Your task to perform on an android device: open app "Spotify: Music and Podcasts" Image 0: 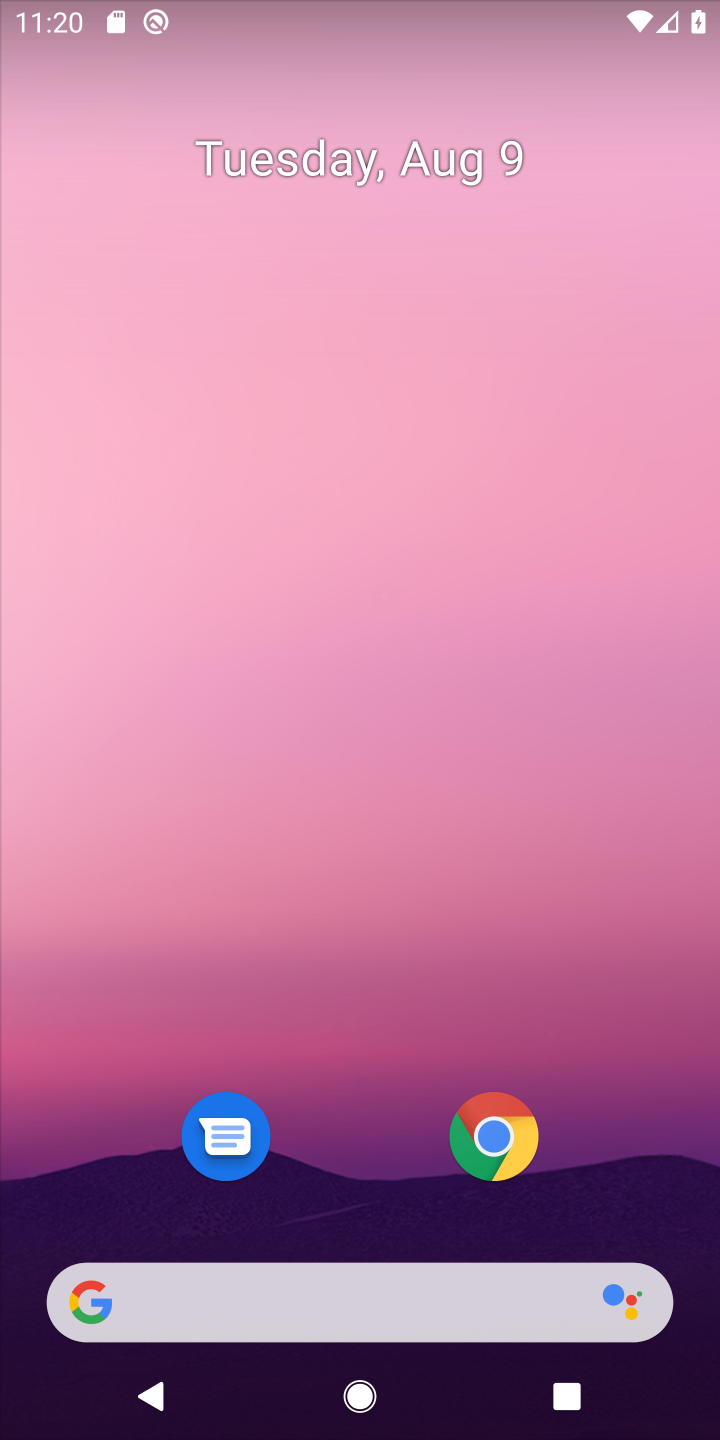
Step 0: drag from (338, 1232) to (509, 365)
Your task to perform on an android device: open app "Spotify: Music and Podcasts" Image 1: 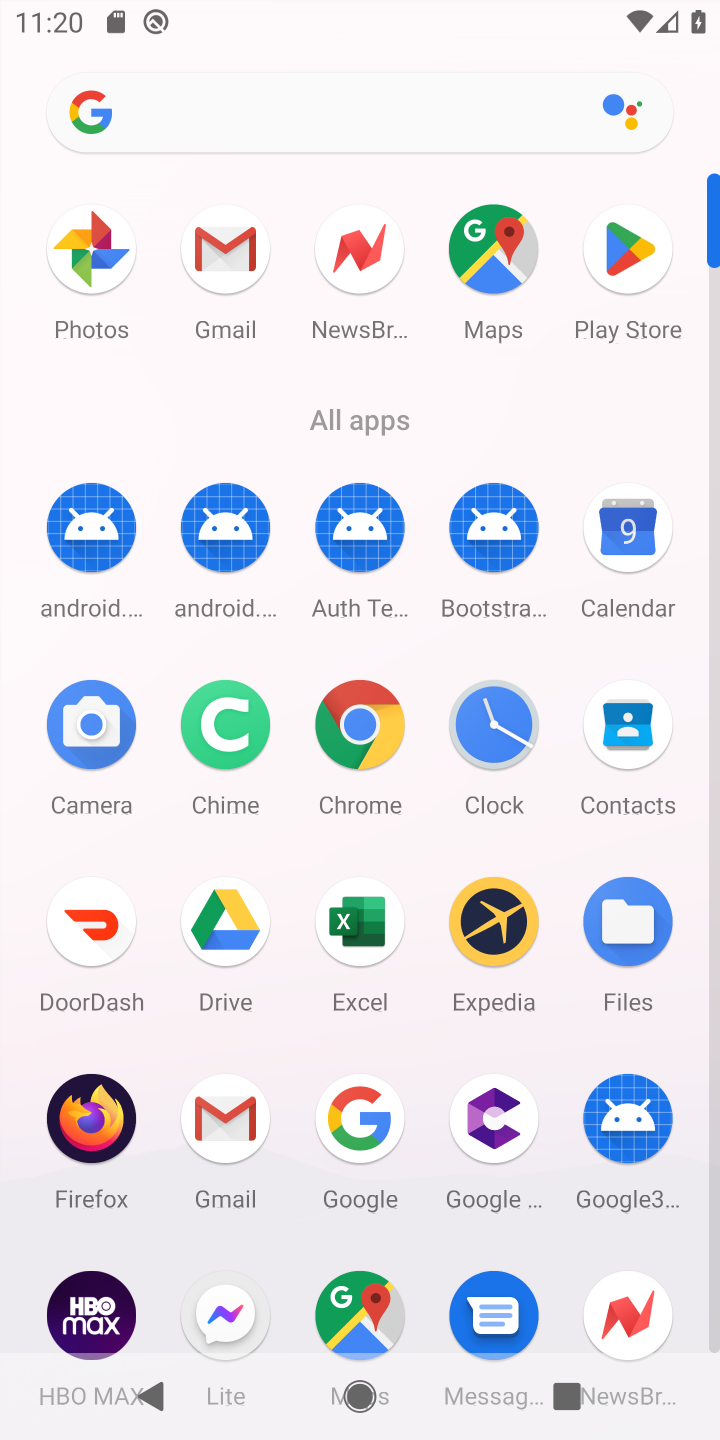
Step 1: click (622, 275)
Your task to perform on an android device: open app "Spotify: Music and Podcasts" Image 2: 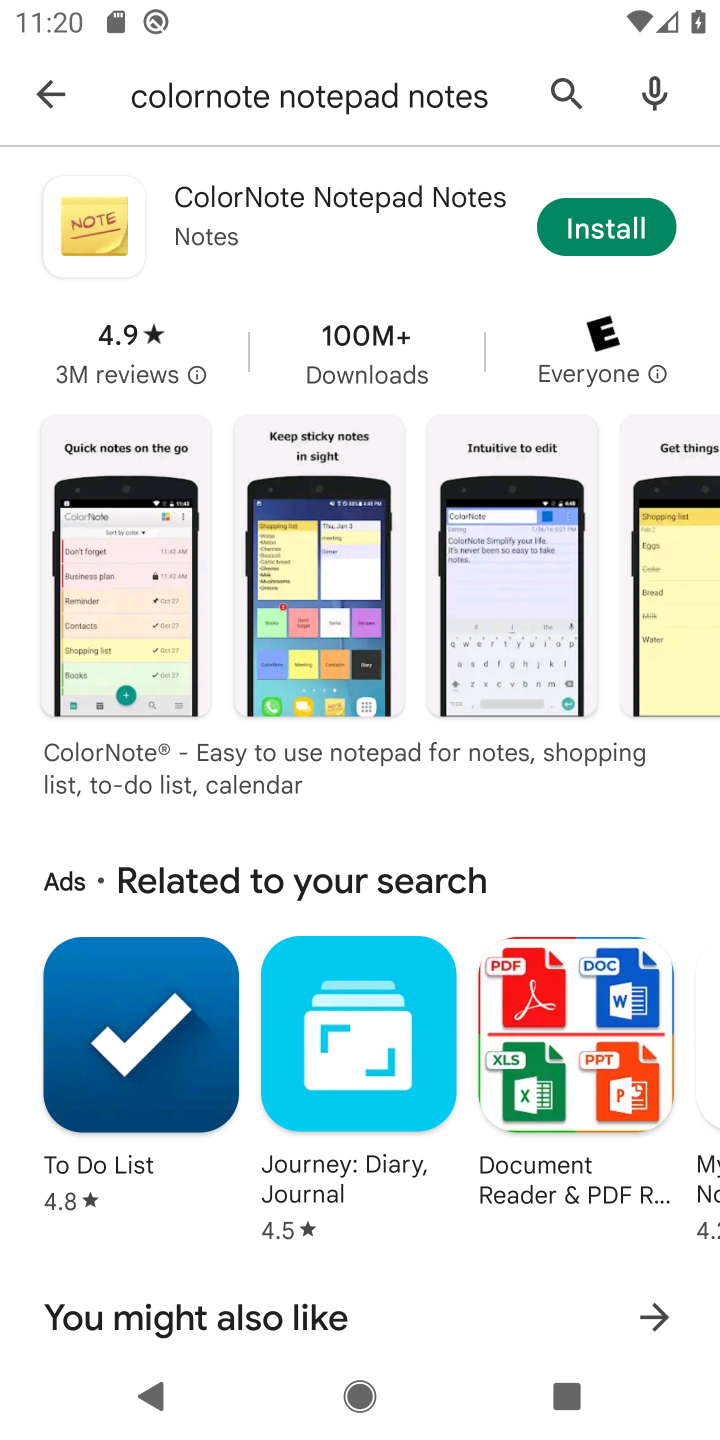
Step 2: click (296, 94)
Your task to perform on an android device: open app "Spotify: Music and Podcasts" Image 3: 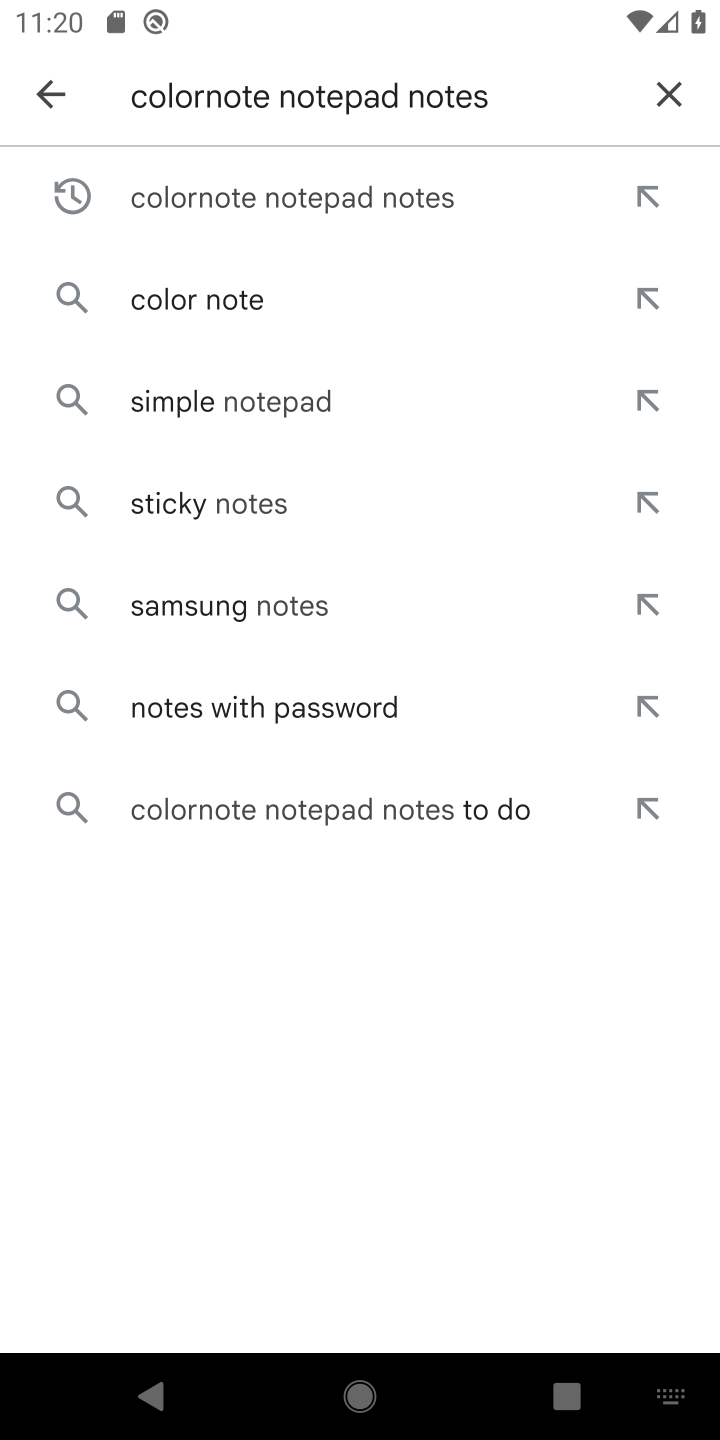
Step 3: click (661, 100)
Your task to perform on an android device: open app "Spotify: Music and Podcasts" Image 4: 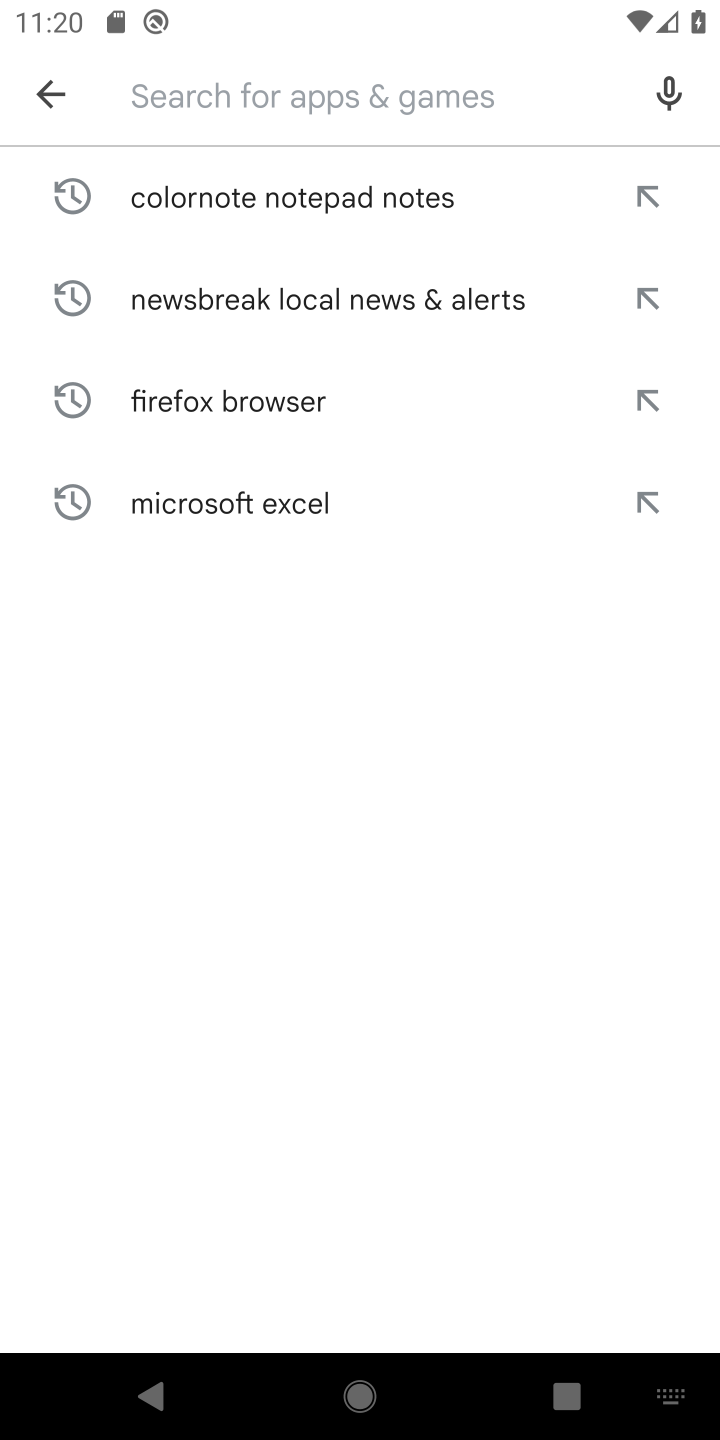
Step 4: type "spotify"
Your task to perform on an android device: open app "Spotify: Music and Podcasts" Image 5: 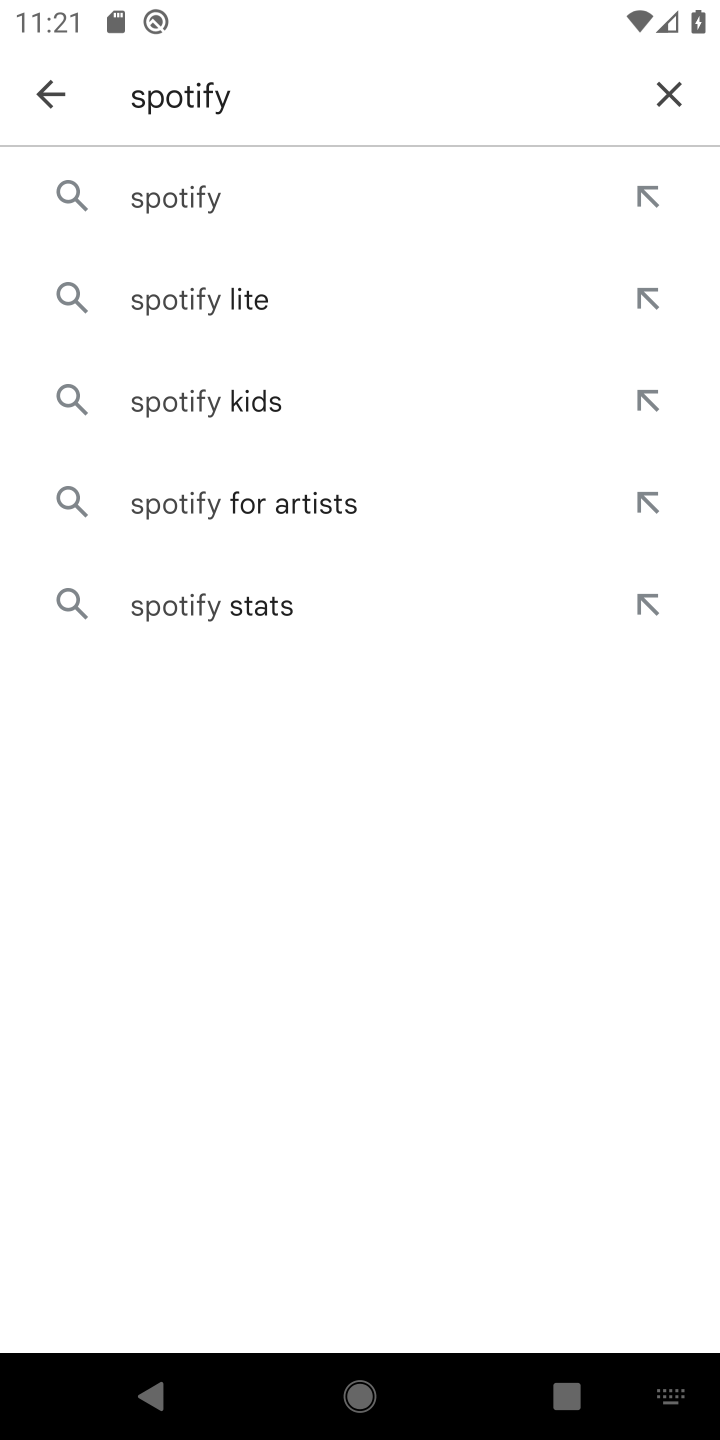
Step 5: click (151, 181)
Your task to perform on an android device: open app "Spotify: Music and Podcasts" Image 6: 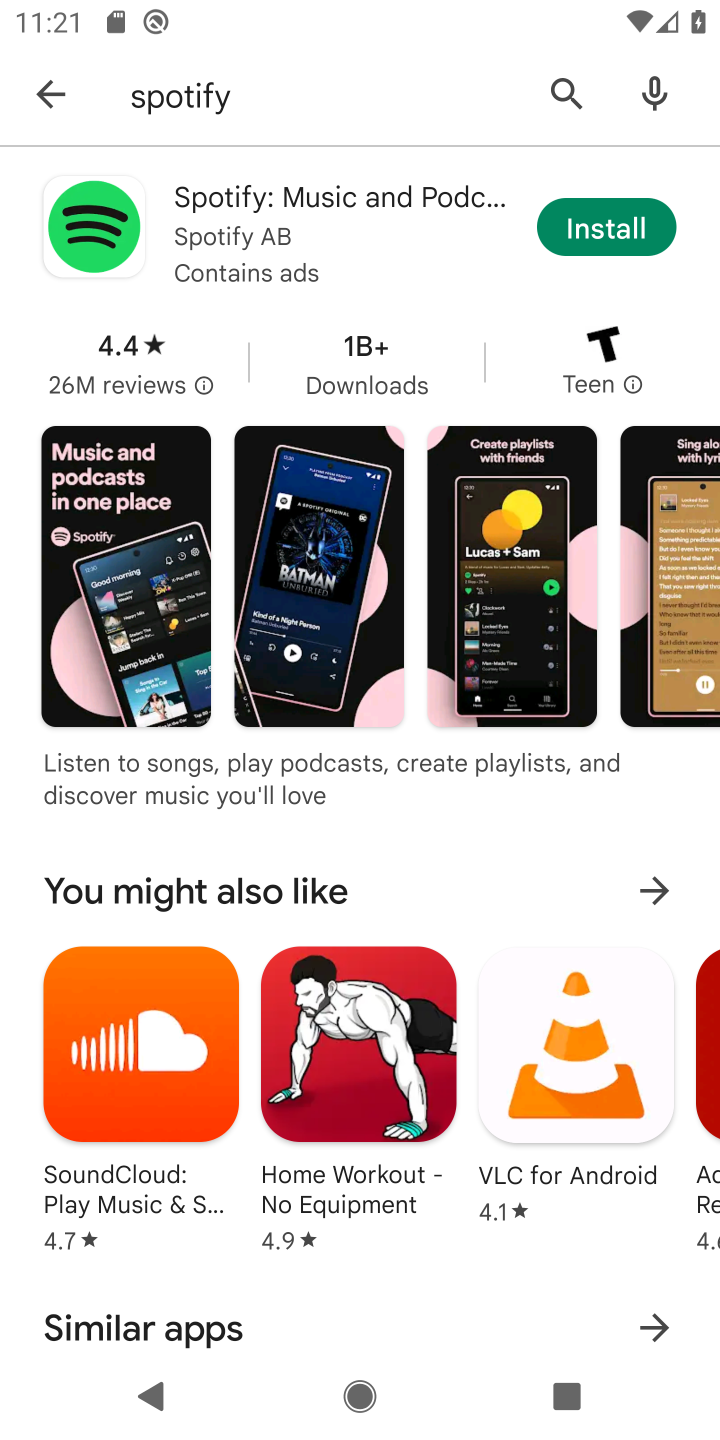
Step 6: task complete